Your task to perform on an android device: turn off picture-in-picture Image 0: 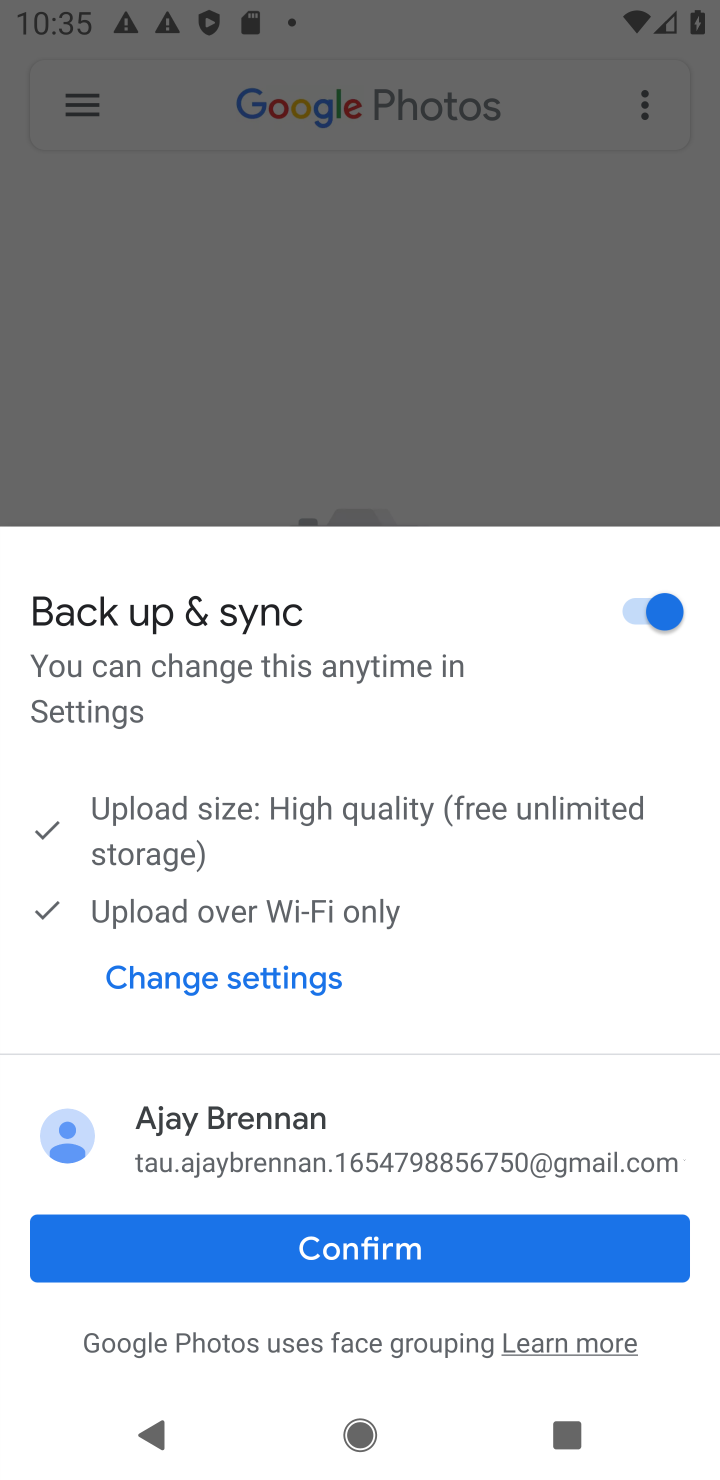
Step 0: press home button
Your task to perform on an android device: turn off picture-in-picture Image 1: 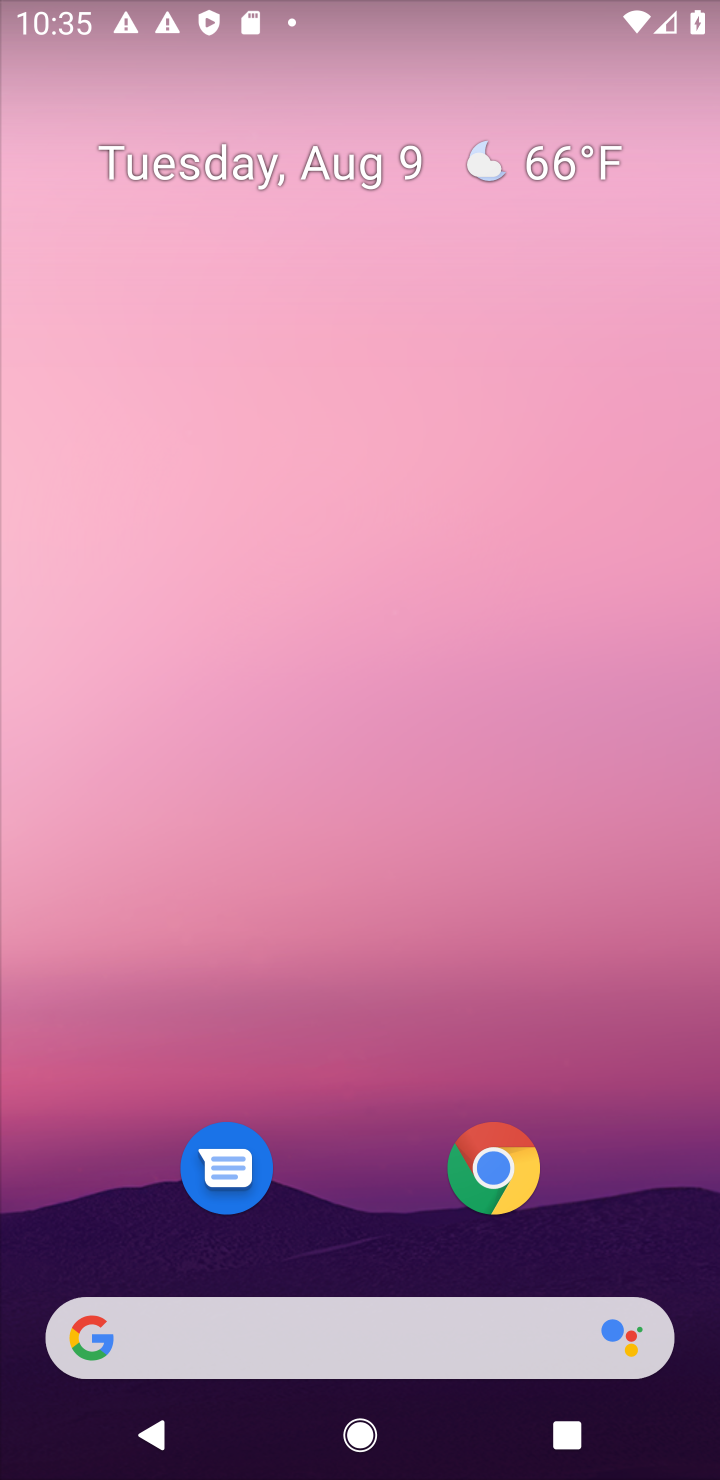
Step 1: click (496, 1129)
Your task to perform on an android device: turn off picture-in-picture Image 2: 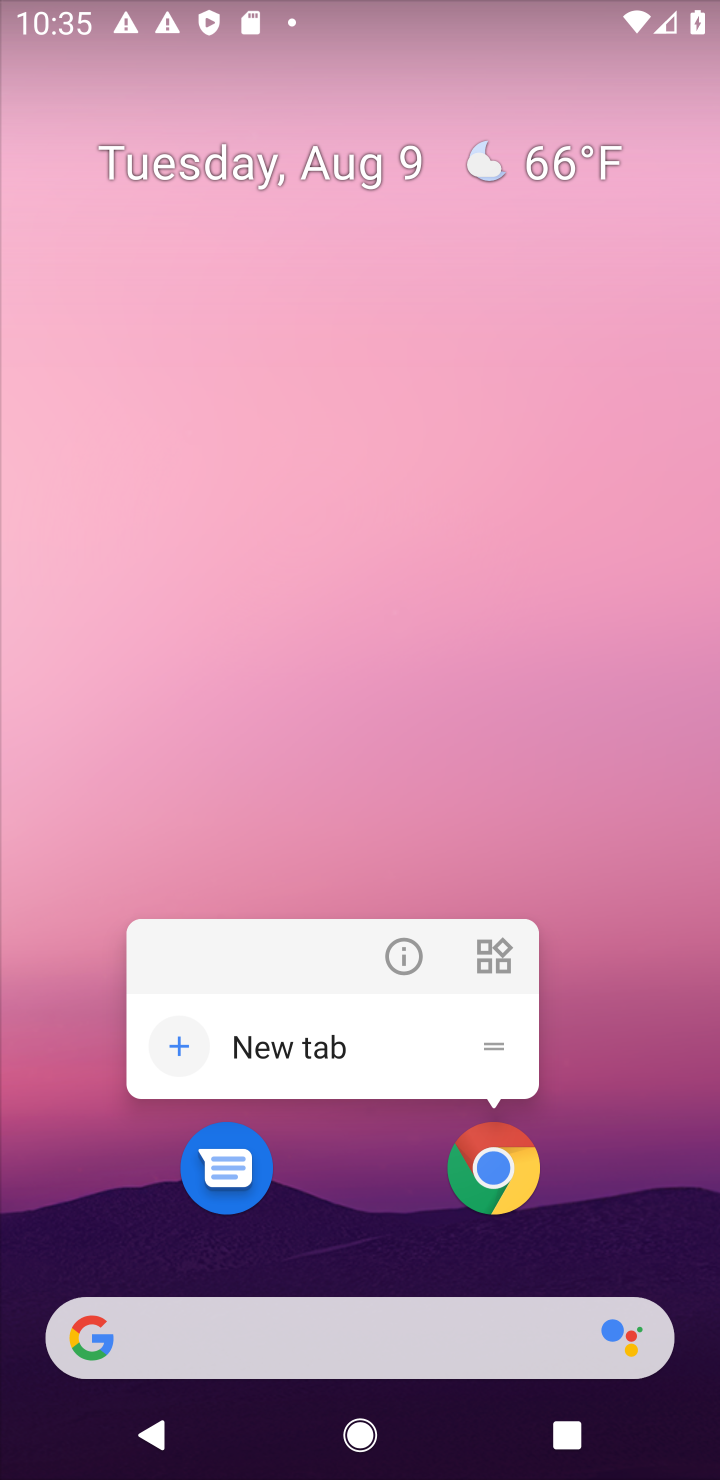
Step 2: click (407, 948)
Your task to perform on an android device: turn off picture-in-picture Image 3: 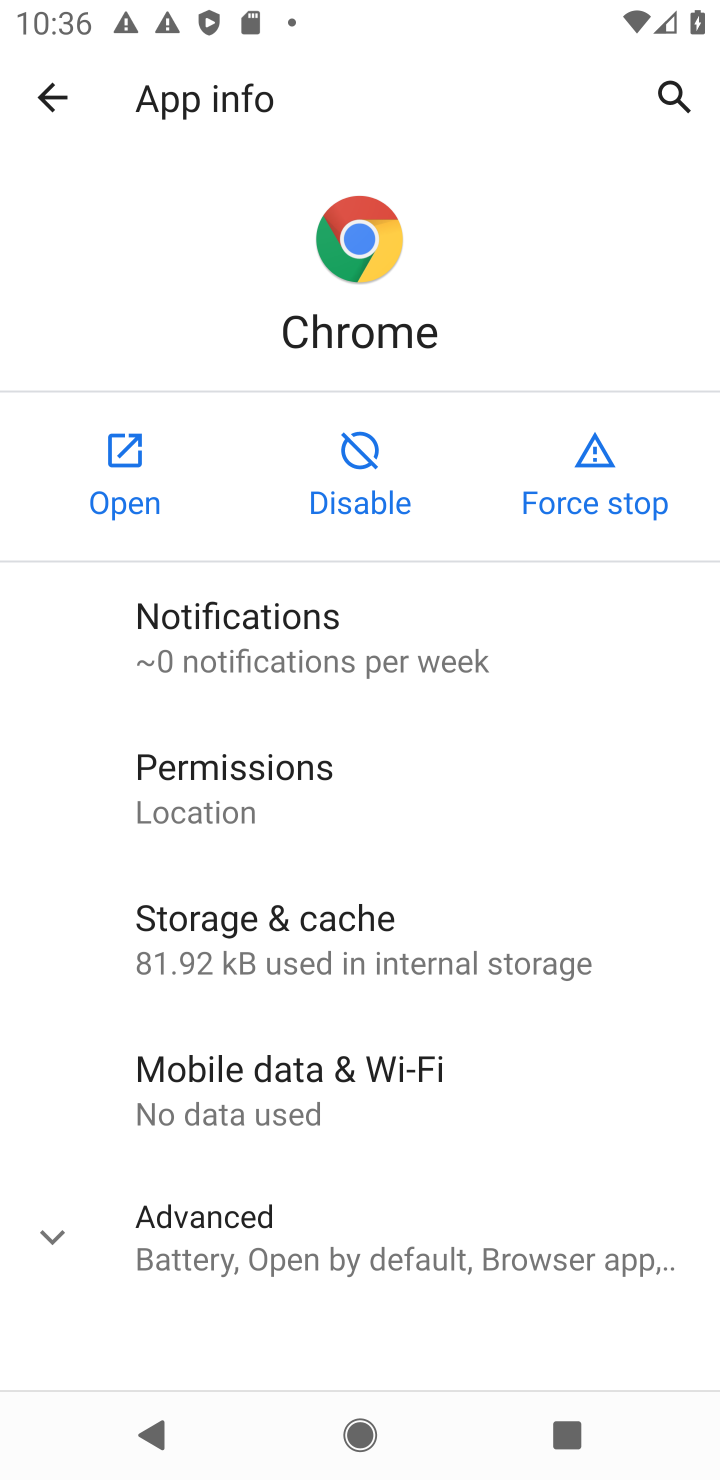
Step 3: click (207, 1281)
Your task to perform on an android device: turn off picture-in-picture Image 4: 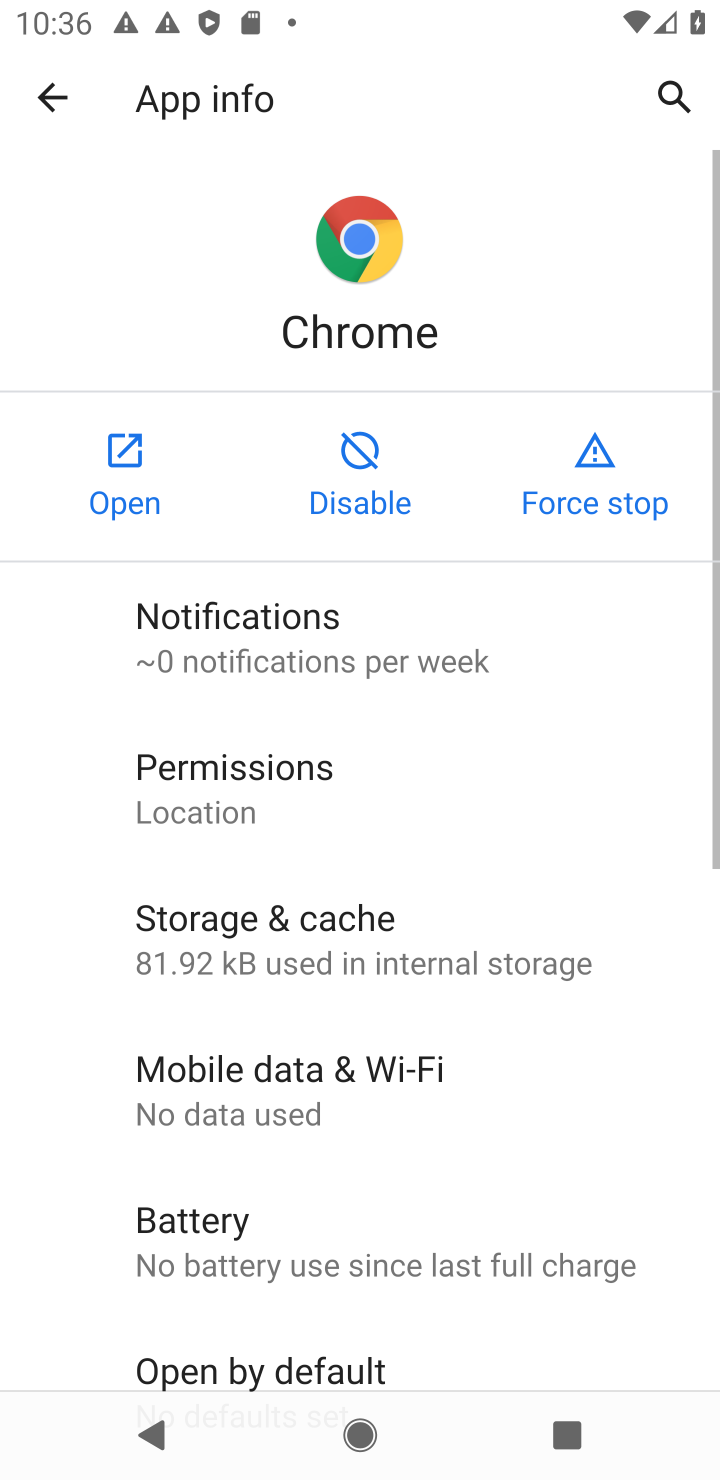
Step 4: drag from (308, 1324) to (354, 208)
Your task to perform on an android device: turn off picture-in-picture Image 5: 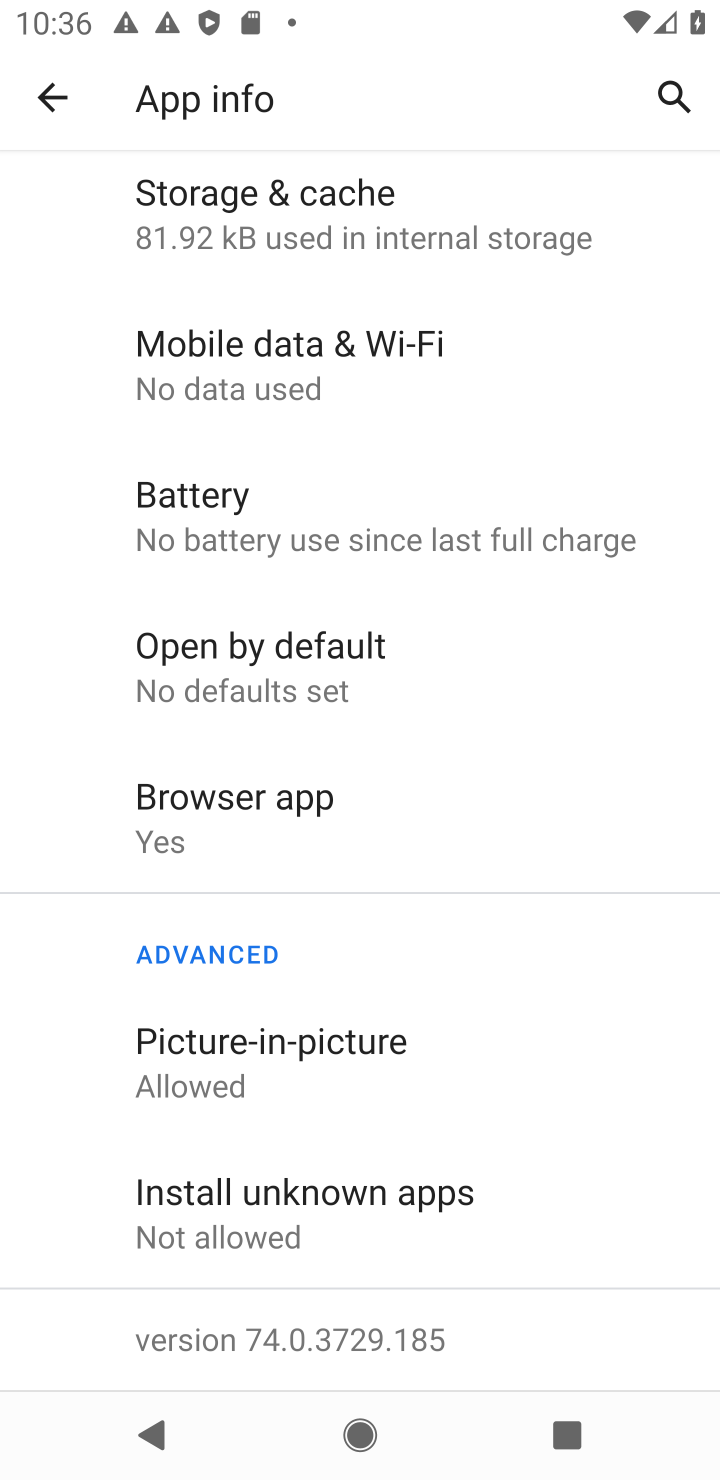
Step 5: click (228, 1047)
Your task to perform on an android device: turn off picture-in-picture Image 6: 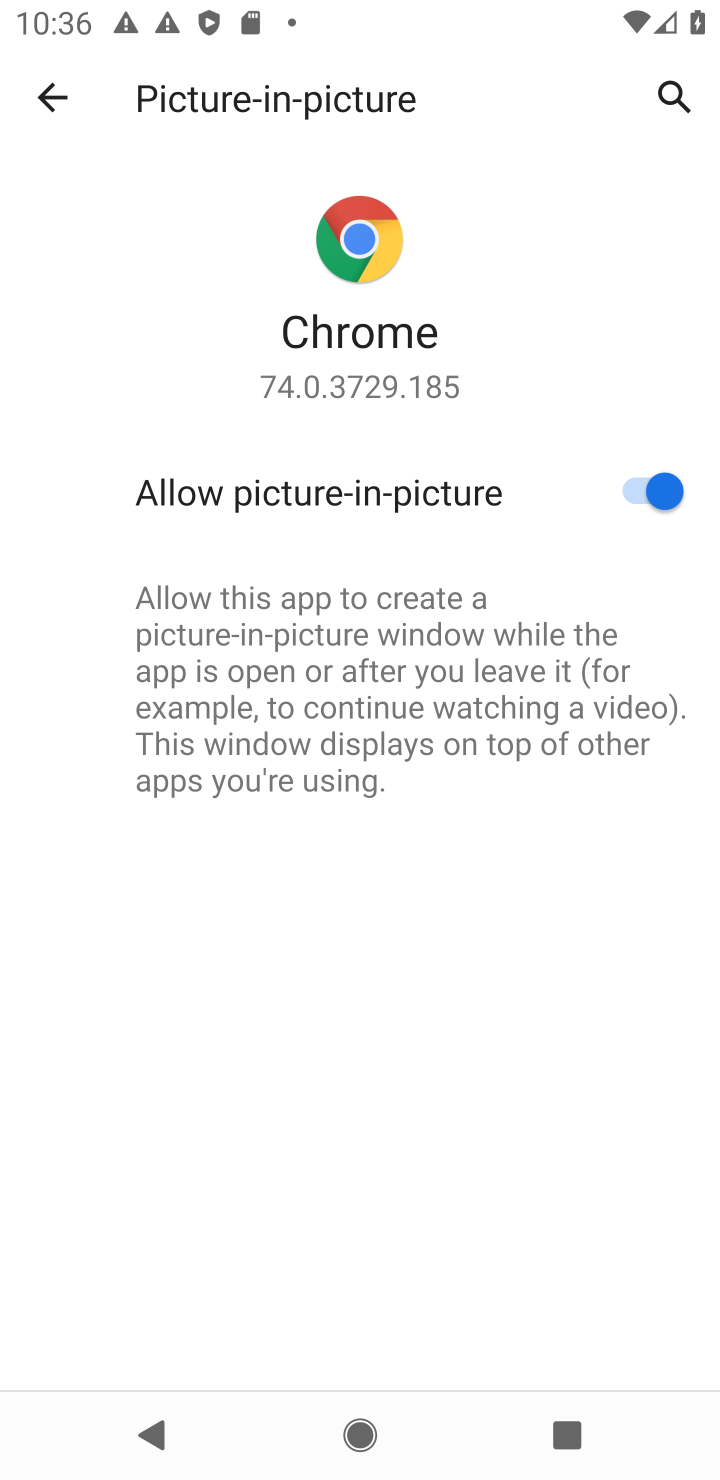
Step 6: click (627, 473)
Your task to perform on an android device: turn off picture-in-picture Image 7: 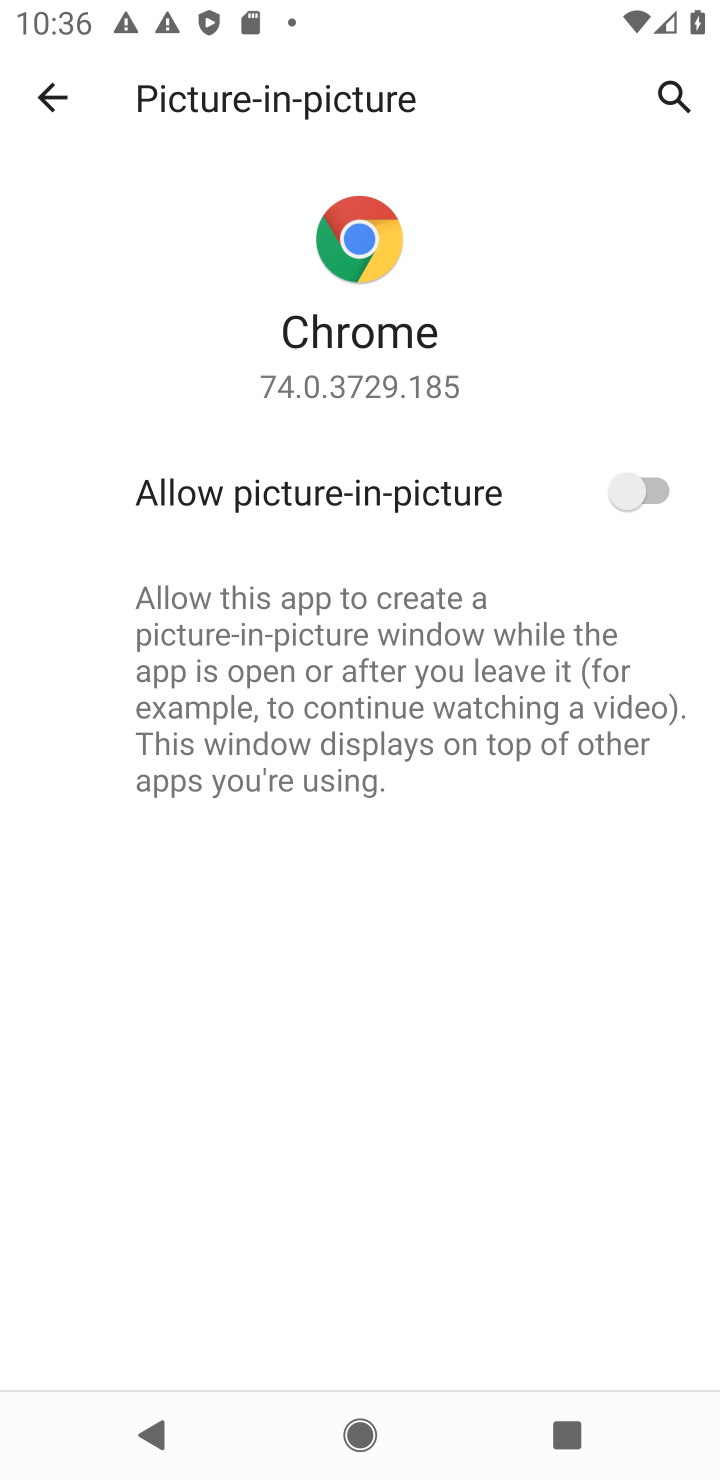
Step 7: task complete